Your task to perform on an android device: turn on translation in the chrome app Image 0: 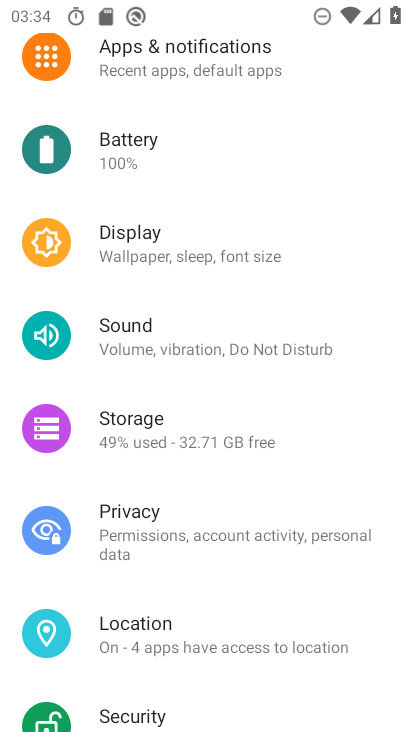
Step 0: press home button
Your task to perform on an android device: turn on translation in the chrome app Image 1: 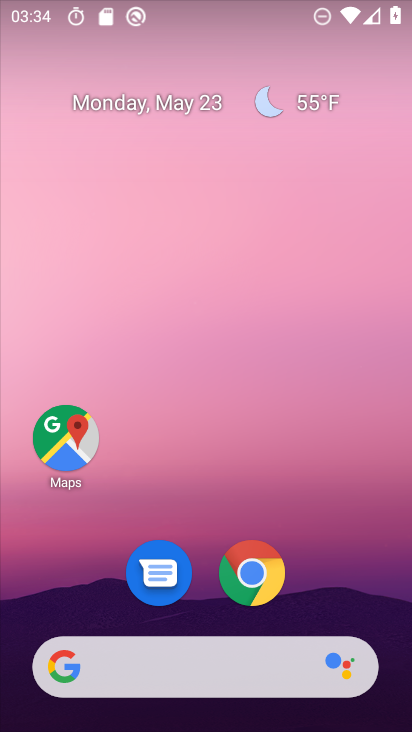
Step 1: click (260, 584)
Your task to perform on an android device: turn on translation in the chrome app Image 2: 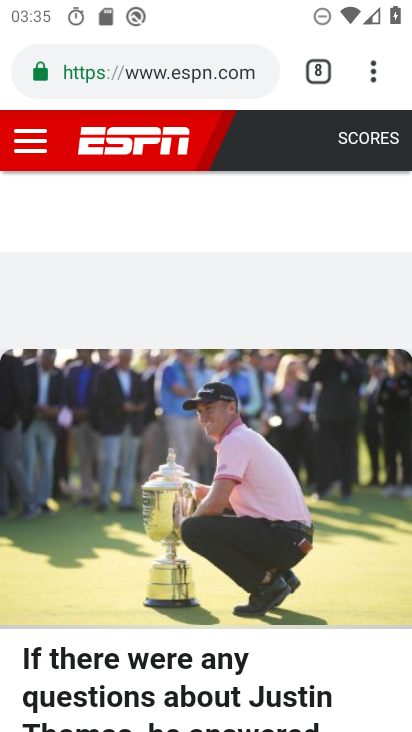
Step 2: click (382, 67)
Your task to perform on an android device: turn on translation in the chrome app Image 3: 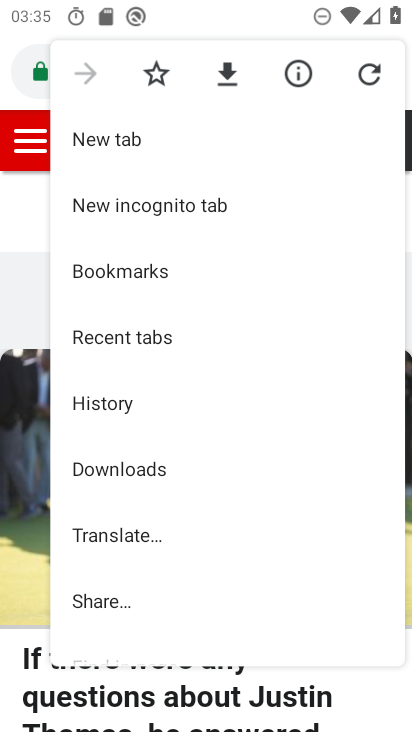
Step 3: drag from (187, 591) to (204, 202)
Your task to perform on an android device: turn on translation in the chrome app Image 4: 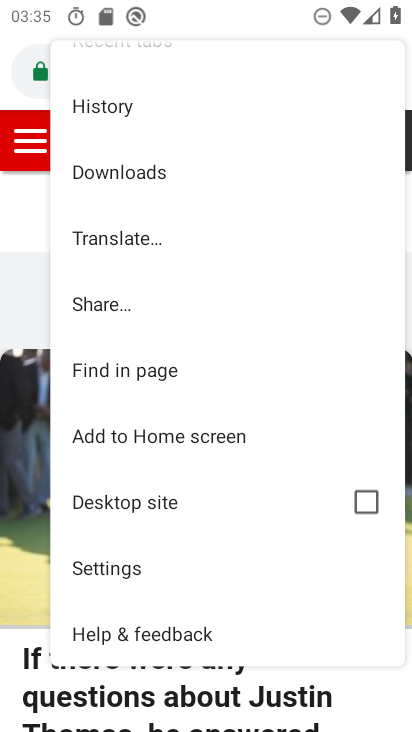
Step 4: click (128, 567)
Your task to perform on an android device: turn on translation in the chrome app Image 5: 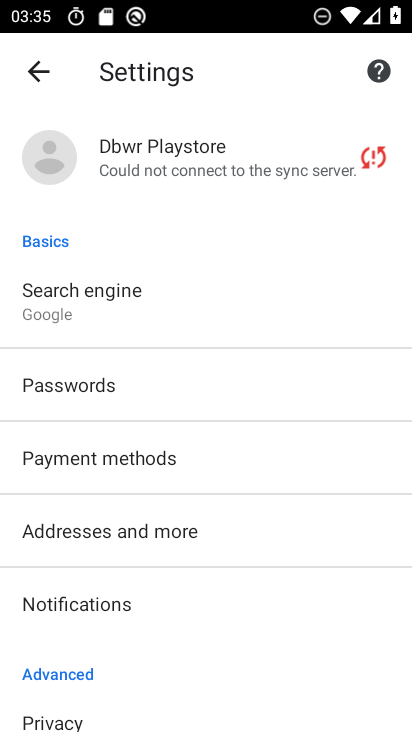
Step 5: drag from (190, 643) to (183, 249)
Your task to perform on an android device: turn on translation in the chrome app Image 6: 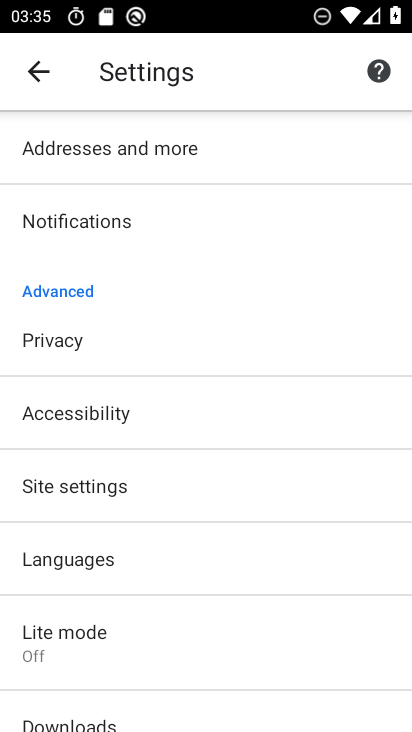
Step 6: click (131, 553)
Your task to perform on an android device: turn on translation in the chrome app Image 7: 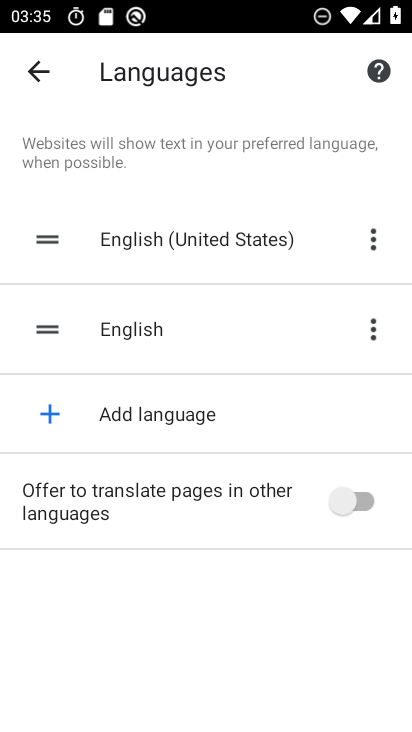
Step 7: click (361, 504)
Your task to perform on an android device: turn on translation in the chrome app Image 8: 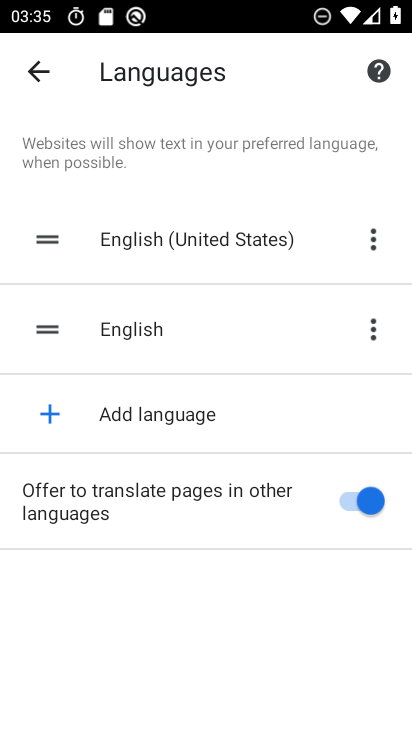
Step 8: task complete